Your task to perform on an android device: What's the weather going to be tomorrow? Image 0: 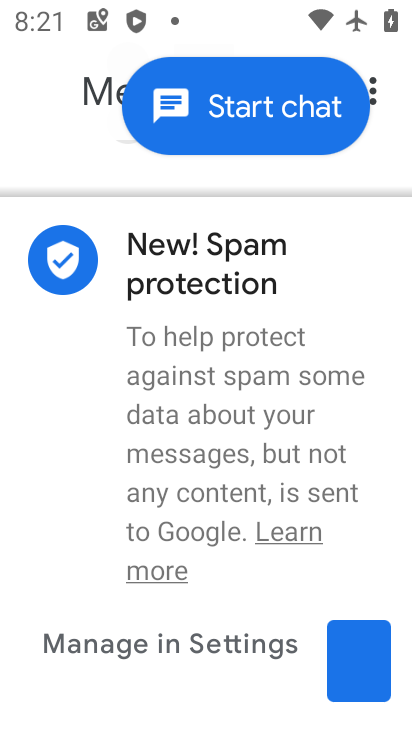
Step 0: press home button
Your task to perform on an android device: What's the weather going to be tomorrow? Image 1: 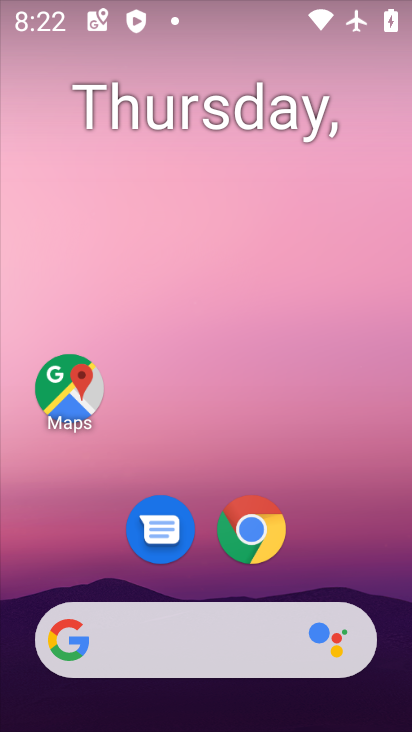
Step 1: drag from (190, 626) to (320, 140)
Your task to perform on an android device: What's the weather going to be tomorrow? Image 2: 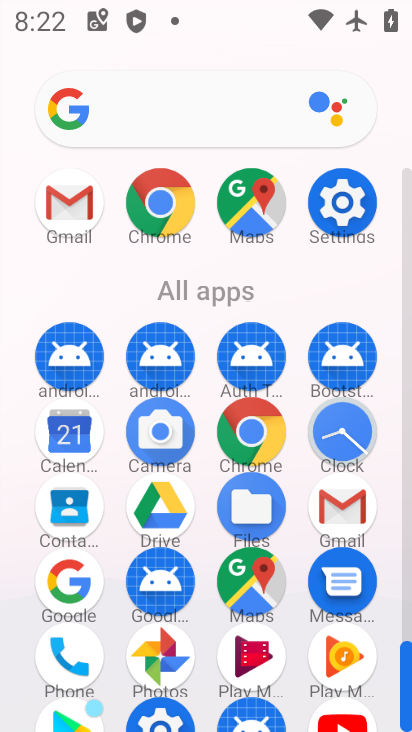
Step 2: click (77, 587)
Your task to perform on an android device: What's the weather going to be tomorrow? Image 3: 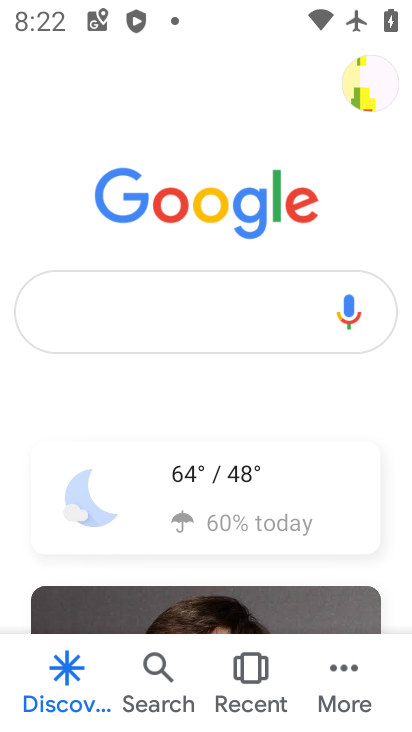
Step 3: click (235, 473)
Your task to perform on an android device: What's the weather going to be tomorrow? Image 4: 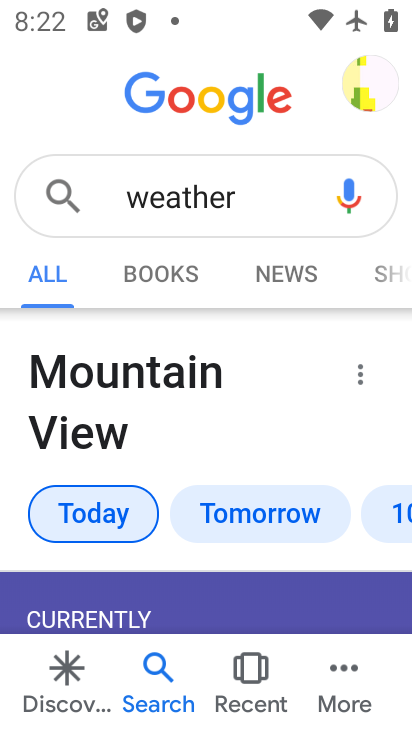
Step 4: click (269, 511)
Your task to perform on an android device: What's the weather going to be tomorrow? Image 5: 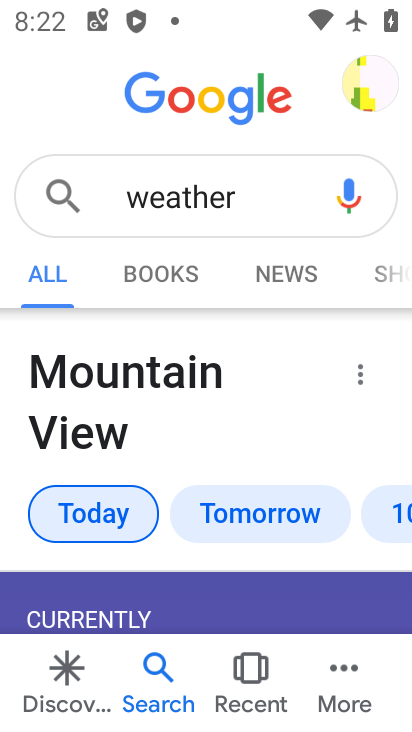
Step 5: click (261, 516)
Your task to perform on an android device: What's the weather going to be tomorrow? Image 6: 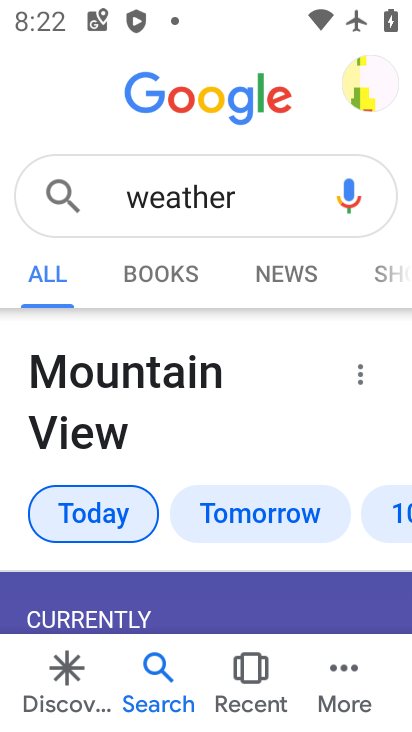
Step 6: drag from (193, 593) to (319, 207)
Your task to perform on an android device: What's the weather going to be tomorrow? Image 7: 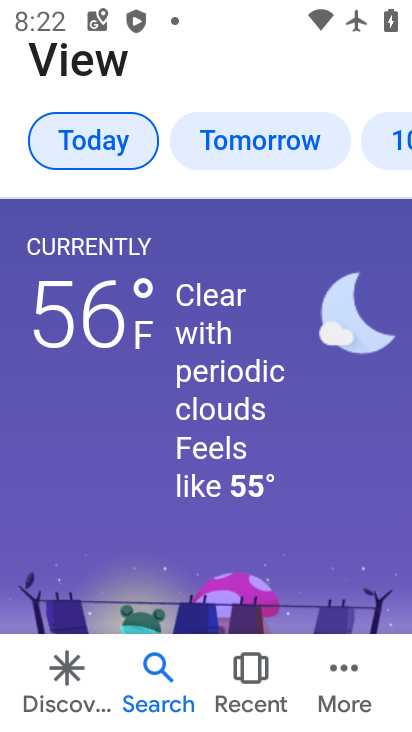
Step 7: click (271, 142)
Your task to perform on an android device: What's the weather going to be tomorrow? Image 8: 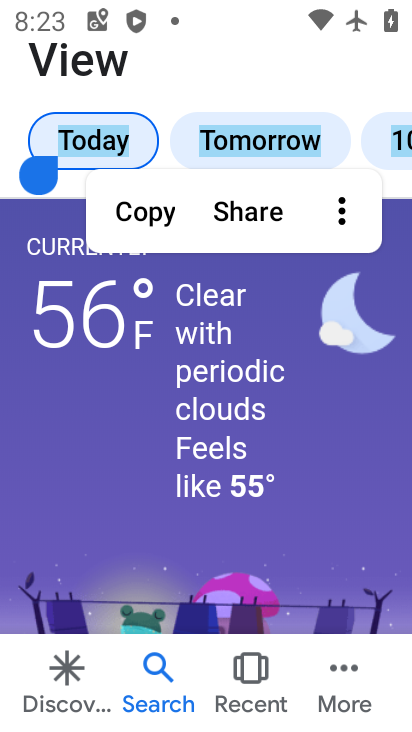
Step 8: click (271, 142)
Your task to perform on an android device: What's the weather going to be tomorrow? Image 9: 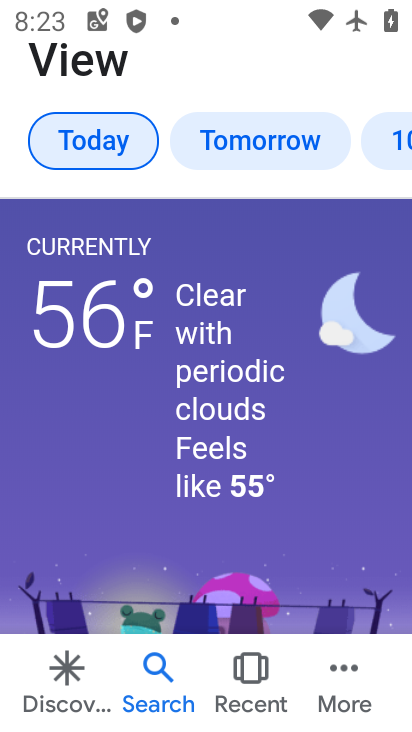
Step 9: click (271, 142)
Your task to perform on an android device: What's the weather going to be tomorrow? Image 10: 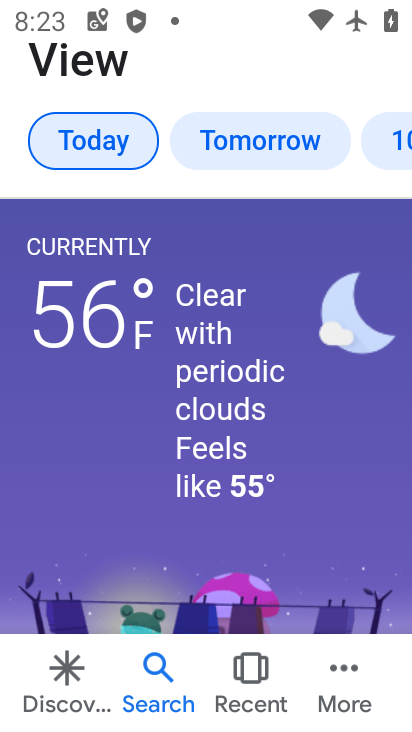
Step 10: task complete